Your task to perform on an android device: What's on my calendar tomorrow? Image 0: 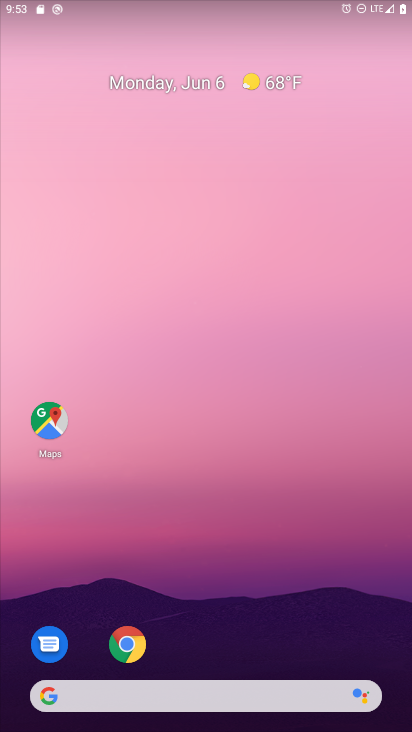
Step 0: drag from (239, 719) to (352, 259)
Your task to perform on an android device: What's on my calendar tomorrow? Image 1: 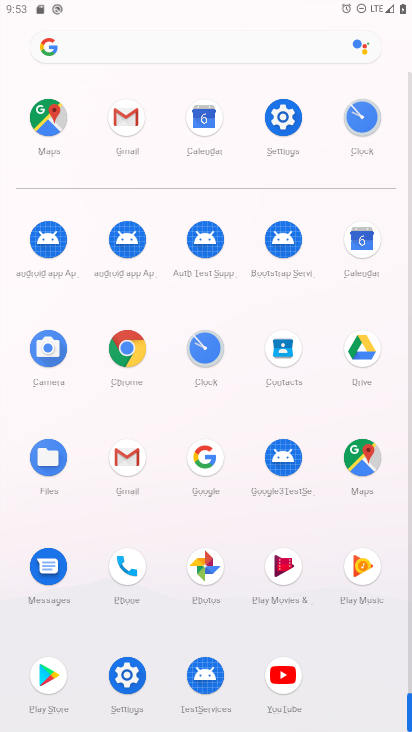
Step 1: click (360, 225)
Your task to perform on an android device: What's on my calendar tomorrow? Image 2: 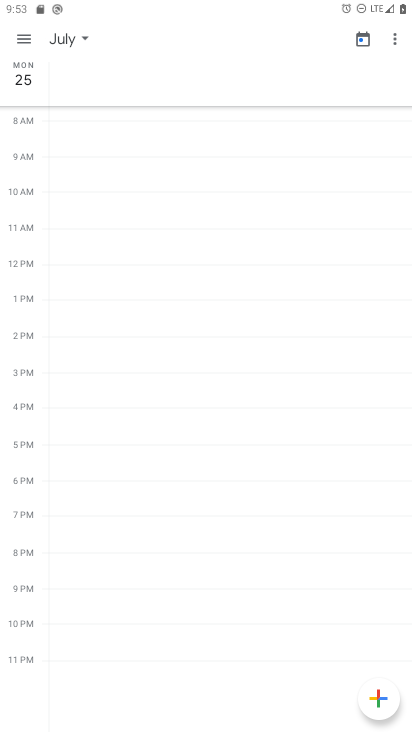
Step 2: click (14, 36)
Your task to perform on an android device: What's on my calendar tomorrow? Image 3: 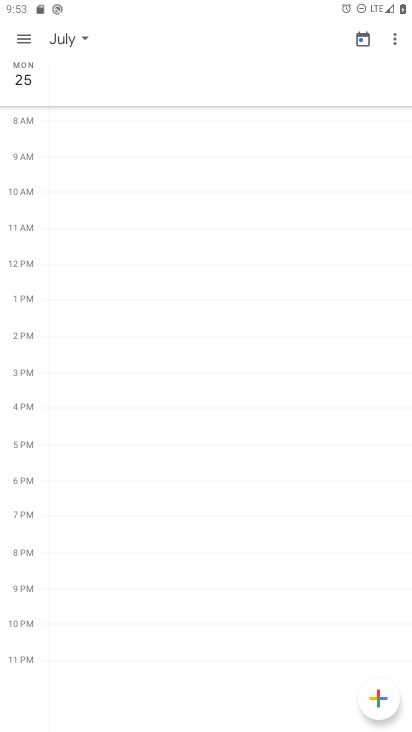
Step 3: click (27, 36)
Your task to perform on an android device: What's on my calendar tomorrow? Image 4: 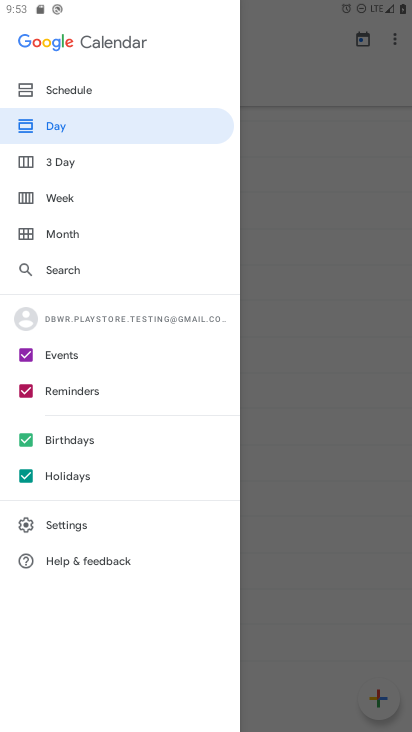
Step 4: click (70, 245)
Your task to perform on an android device: What's on my calendar tomorrow? Image 5: 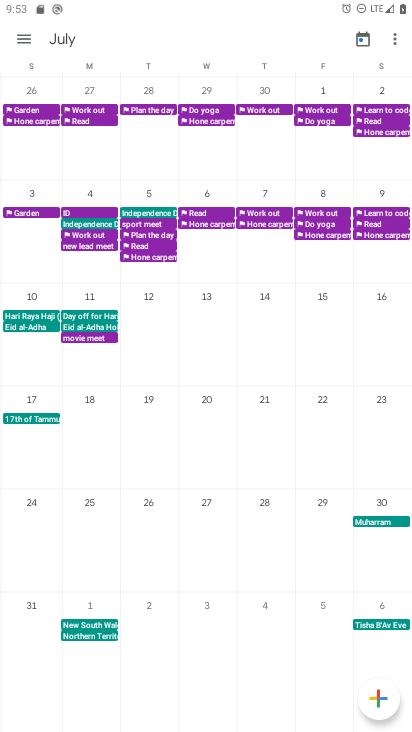
Step 5: drag from (54, 416) to (404, 402)
Your task to perform on an android device: What's on my calendar tomorrow? Image 6: 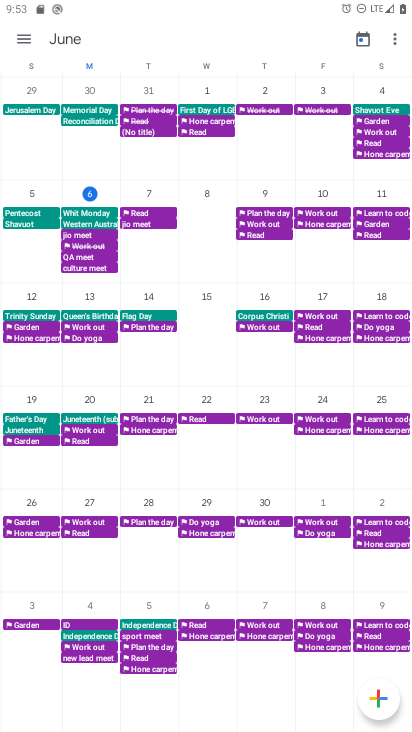
Step 6: click (156, 223)
Your task to perform on an android device: What's on my calendar tomorrow? Image 7: 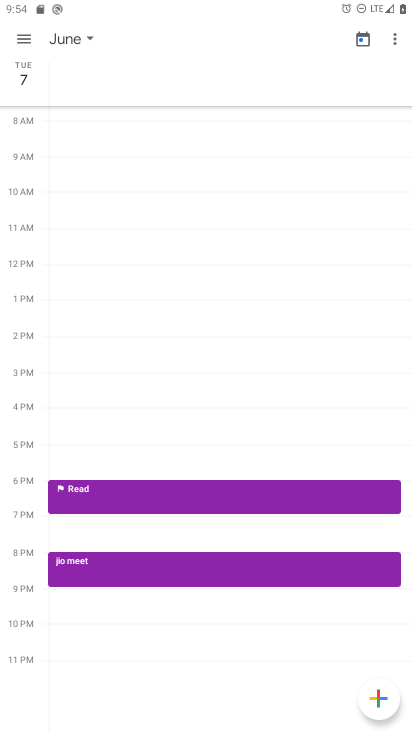
Step 7: task complete